Your task to perform on an android device: Search for pizza restaurants on Maps Image 0: 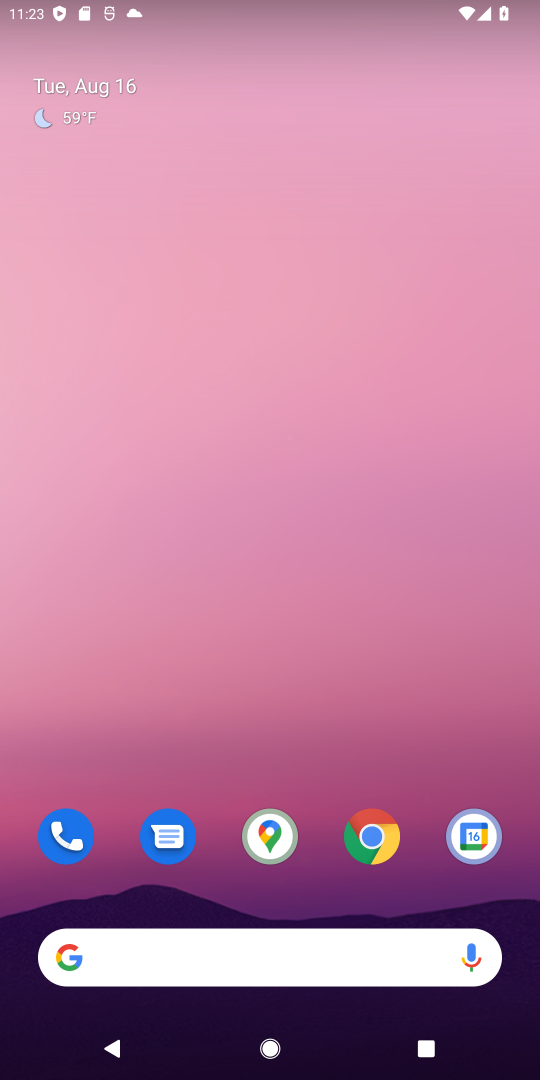
Step 0: drag from (235, 947) to (263, 295)
Your task to perform on an android device: Search for pizza restaurants on Maps Image 1: 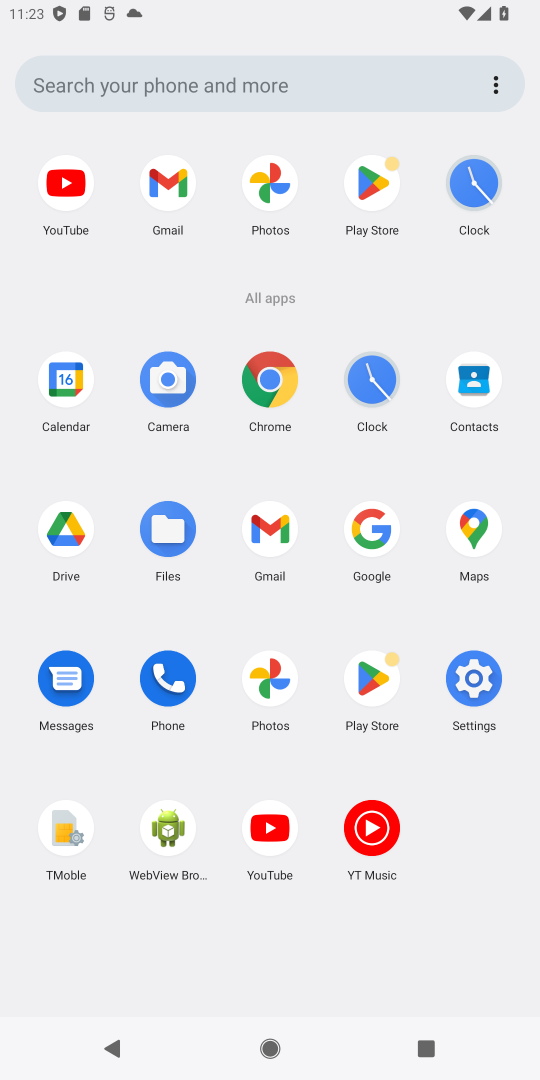
Step 1: click (472, 524)
Your task to perform on an android device: Search for pizza restaurants on Maps Image 2: 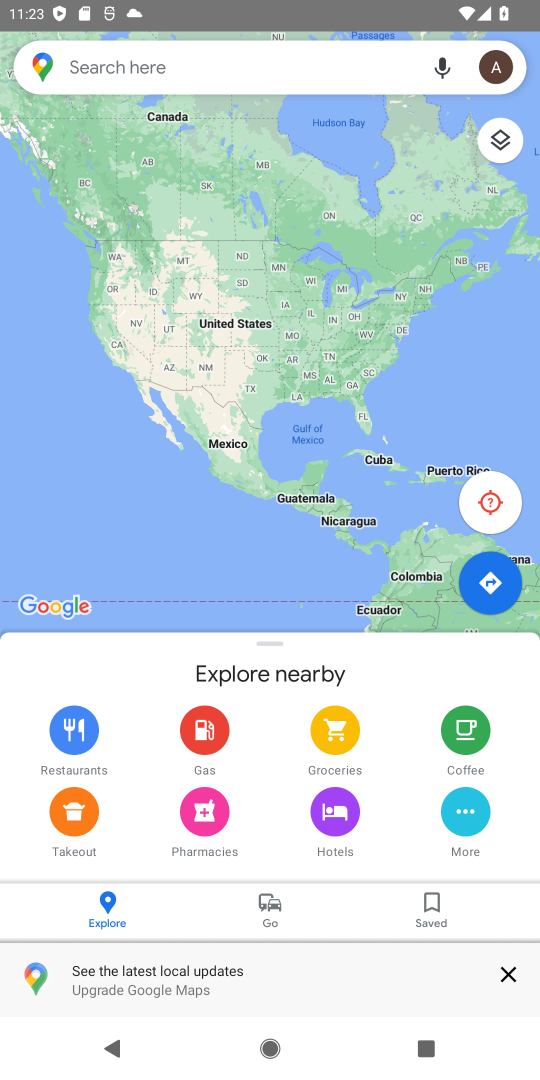
Step 2: click (273, 72)
Your task to perform on an android device: Search for pizza restaurants on Maps Image 3: 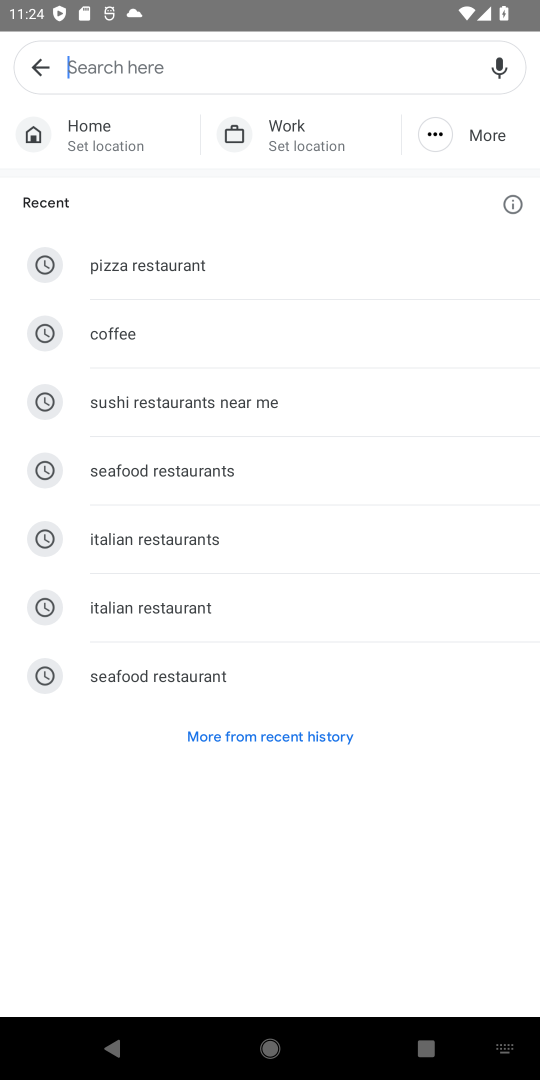
Step 3: type "pizza restaurants"
Your task to perform on an android device: Search for pizza restaurants on Maps Image 4: 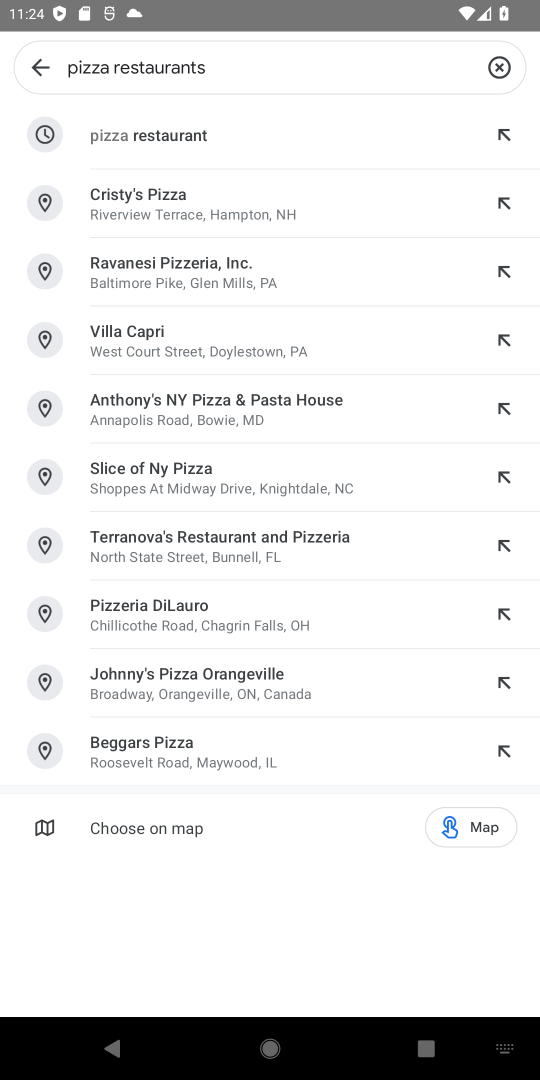
Step 4: click (175, 133)
Your task to perform on an android device: Search for pizza restaurants on Maps Image 5: 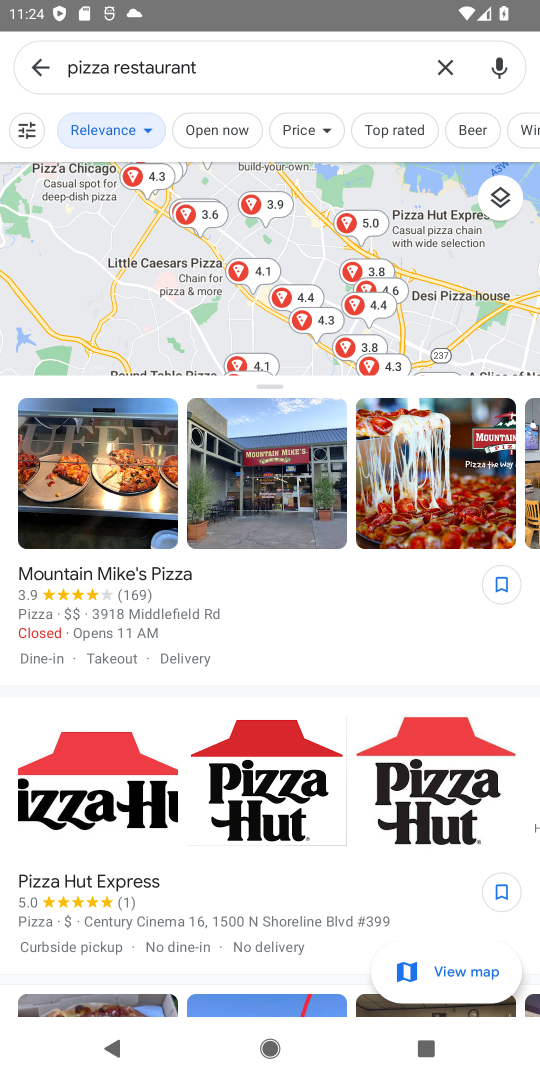
Step 5: task complete